Your task to perform on an android device: open the mobile data screen to see how much data has been used Image 0: 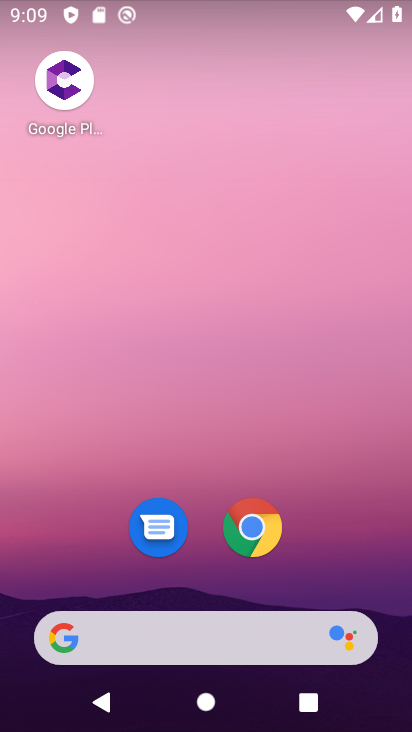
Step 0: drag from (400, 709) to (368, 184)
Your task to perform on an android device: open the mobile data screen to see how much data has been used Image 1: 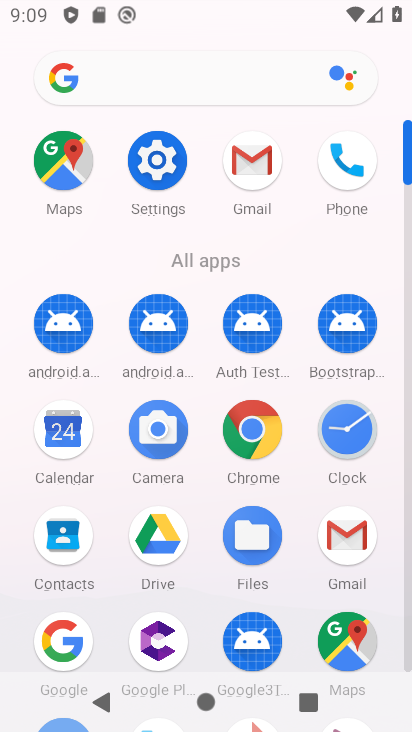
Step 1: click (143, 166)
Your task to perform on an android device: open the mobile data screen to see how much data has been used Image 2: 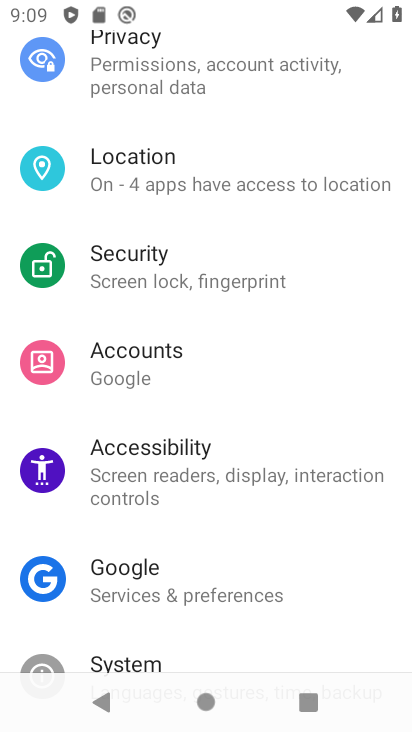
Step 2: drag from (378, 72) to (339, 631)
Your task to perform on an android device: open the mobile data screen to see how much data has been used Image 3: 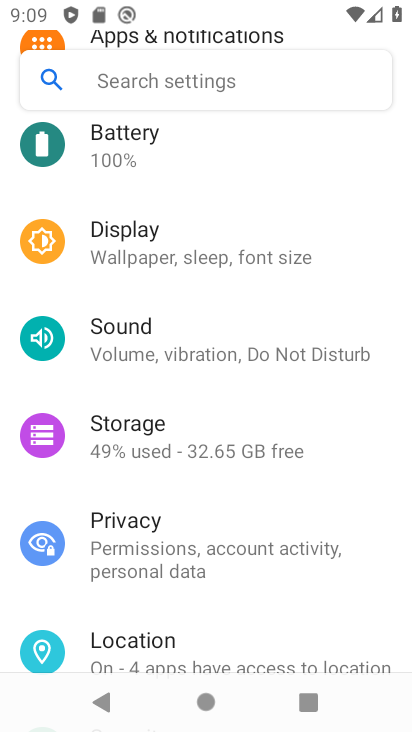
Step 3: drag from (366, 137) to (292, 657)
Your task to perform on an android device: open the mobile data screen to see how much data has been used Image 4: 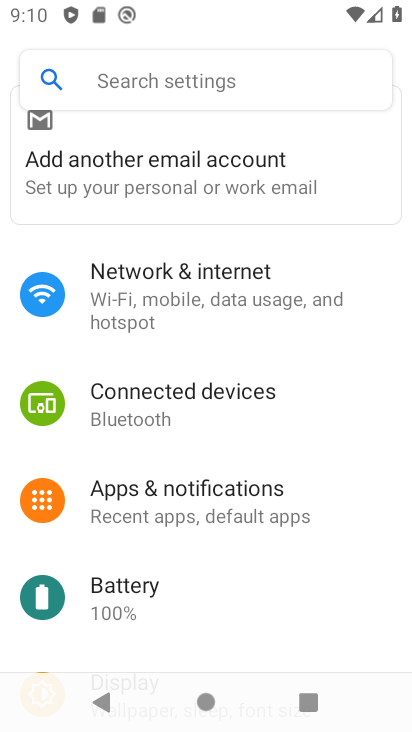
Step 4: click (175, 278)
Your task to perform on an android device: open the mobile data screen to see how much data has been used Image 5: 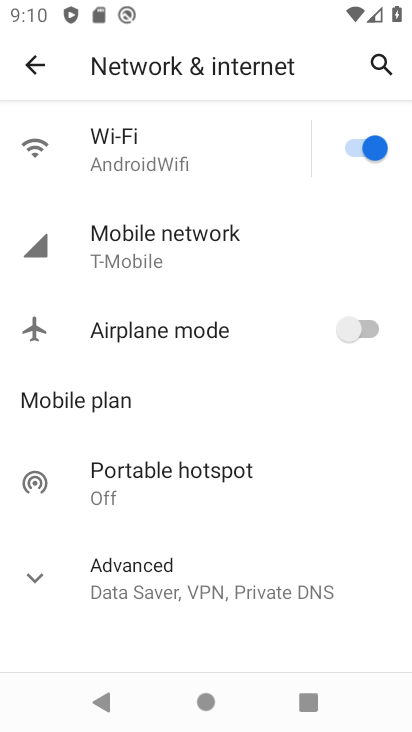
Step 5: click (183, 238)
Your task to perform on an android device: open the mobile data screen to see how much data has been used Image 6: 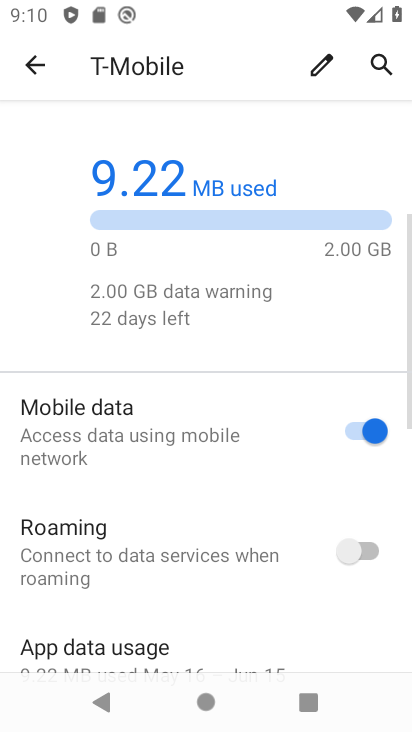
Step 6: task complete